Your task to perform on an android device: open app "Chime – Mobile Banking" Image 0: 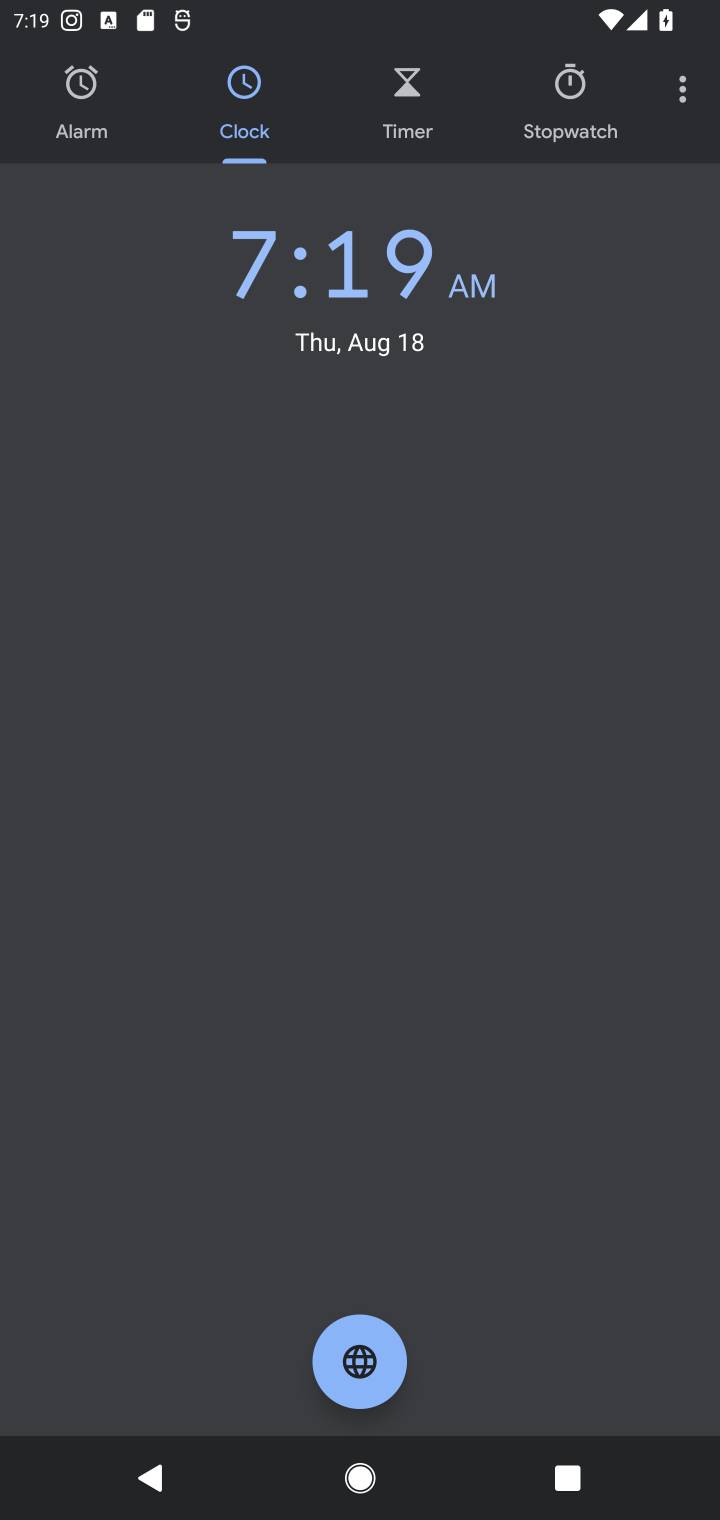
Step 0: press home button
Your task to perform on an android device: open app "Chime – Mobile Banking" Image 1: 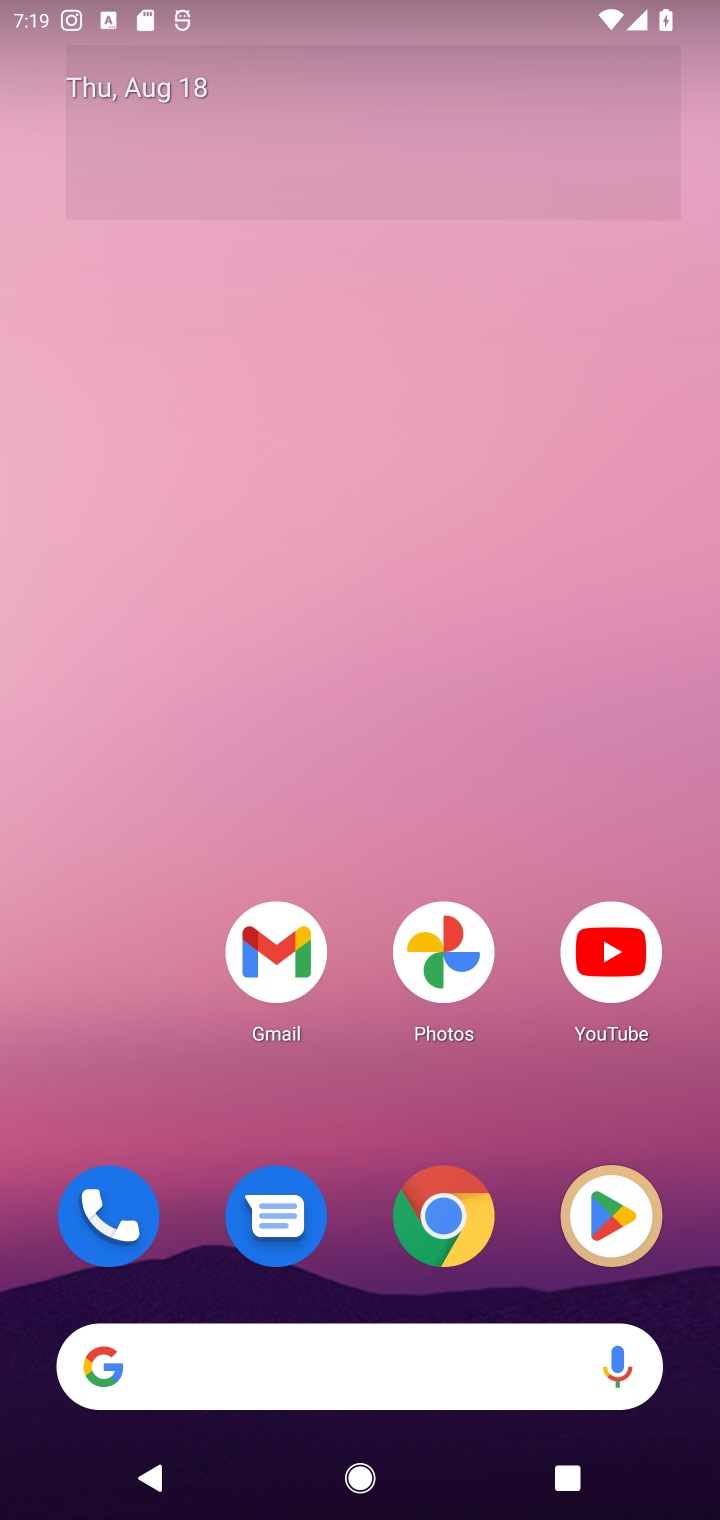
Step 1: click (620, 1191)
Your task to perform on an android device: open app "Chime – Mobile Banking" Image 2: 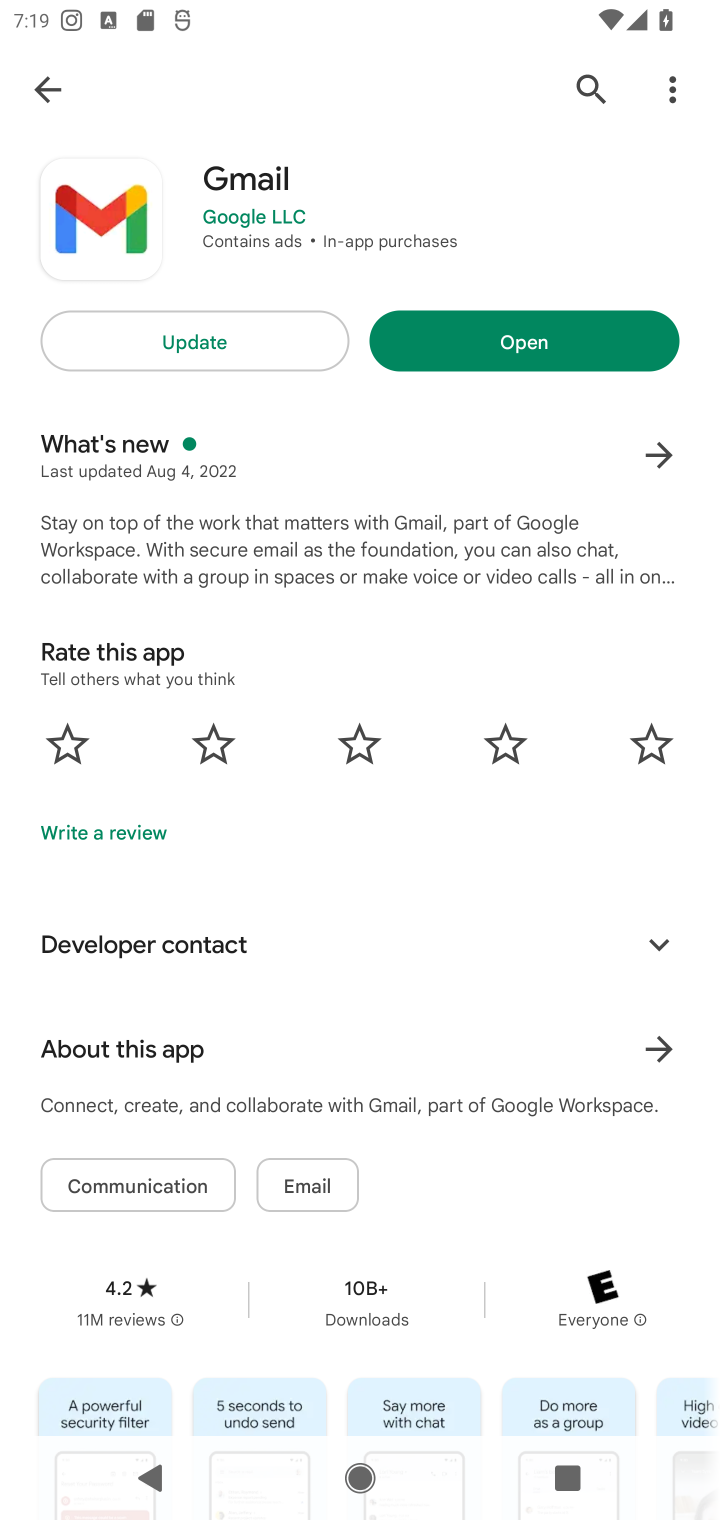
Step 2: click (588, 90)
Your task to perform on an android device: open app "Chime – Mobile Banking" Image 3: 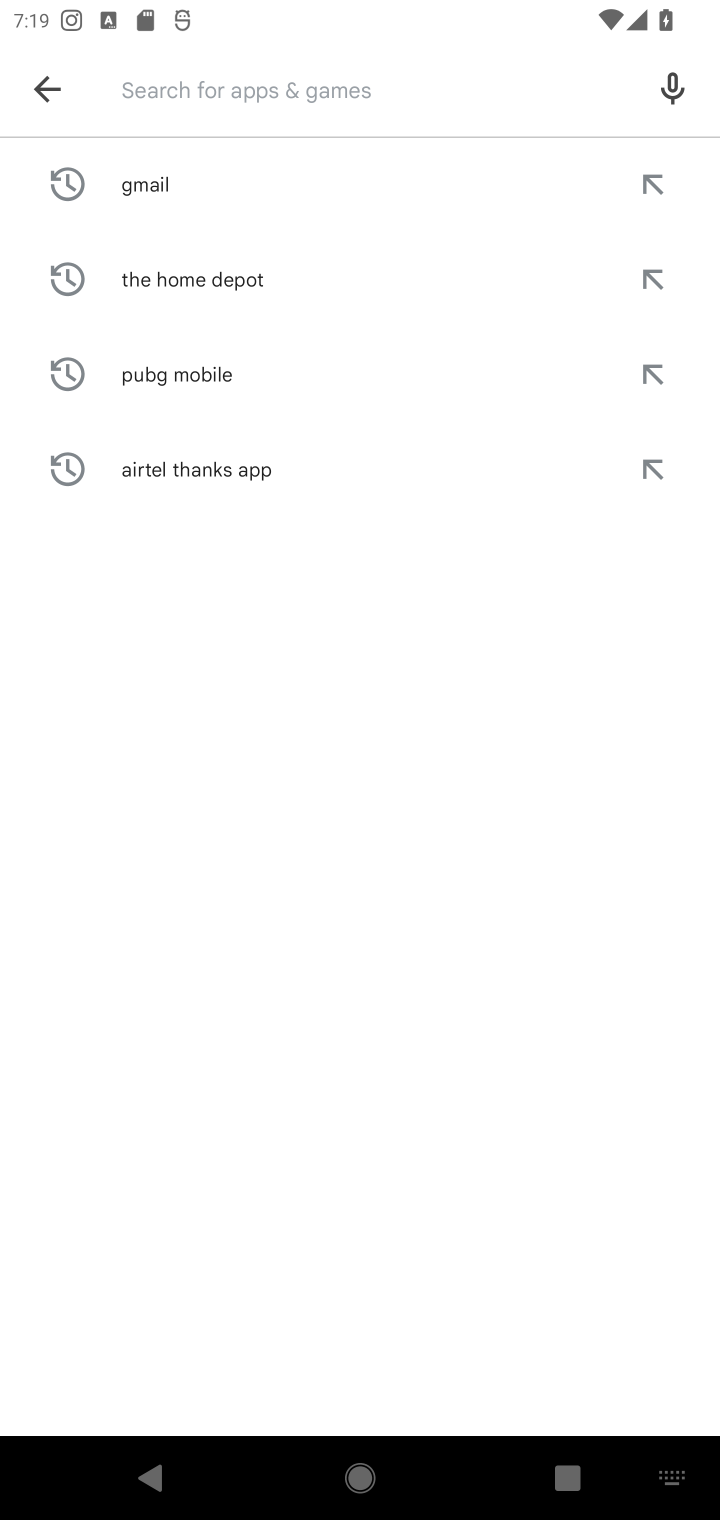
Step 3: type "Chime"
Your task to perform on an android device: open app "Chime – Mobile Banking" Image 4: 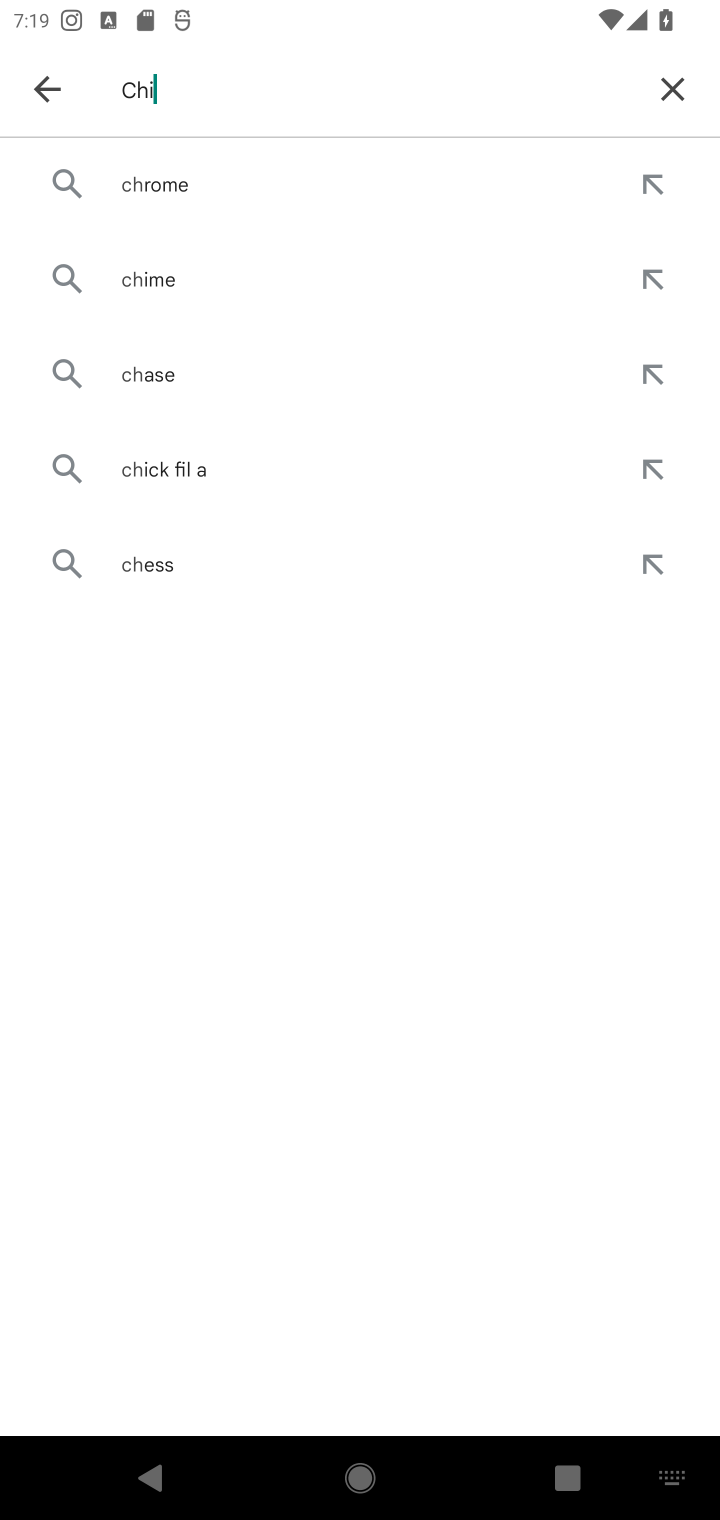
Step 4: type ""
Your task to perform on an android device: open app "Chime – Mobile Banking" Image 5: 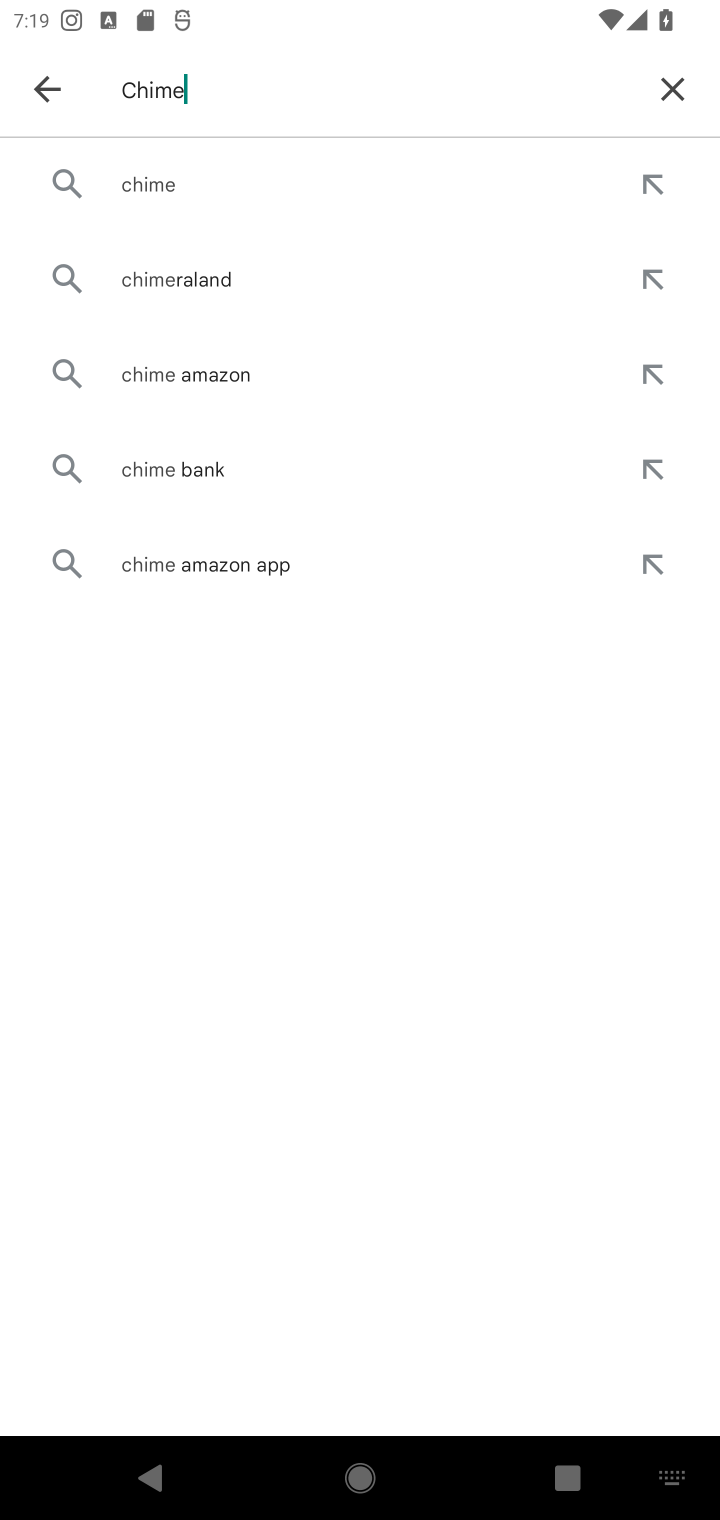
Step 5: click (184, 174)
Your task to perform on an android device: open app "Chime – Mobile Banking" Image 6: 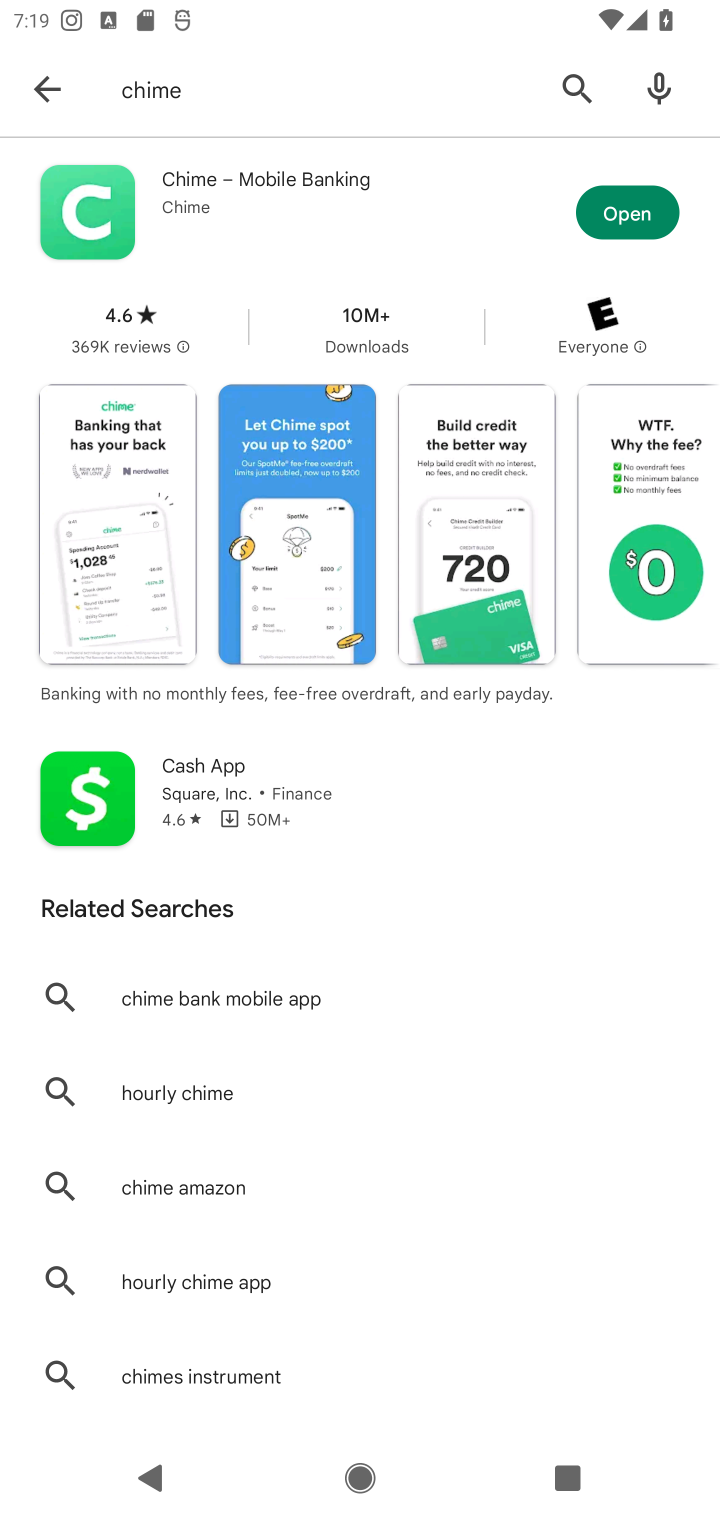
Step 6: click (626, 205)
Your task to perform on an android device: open app "Chime – Mobile Banking" Image 7: 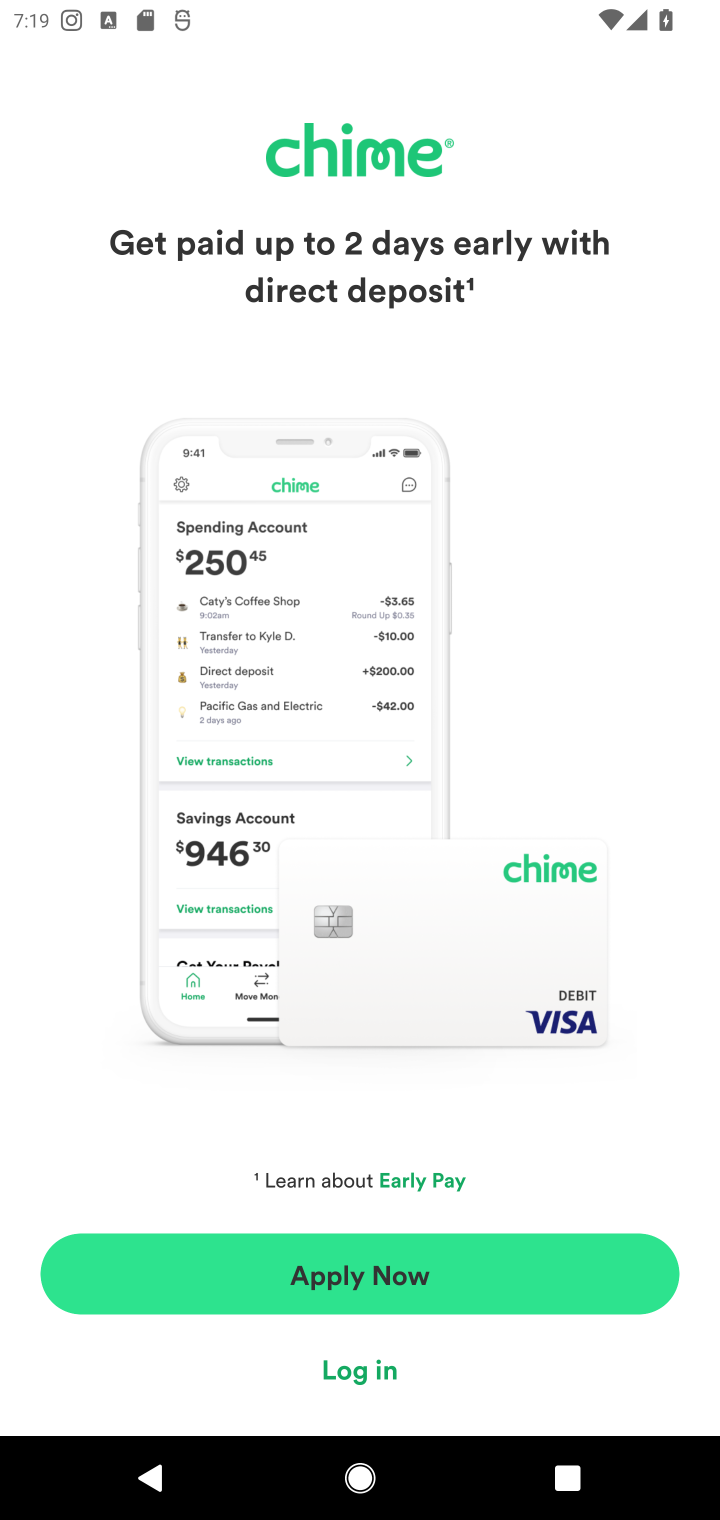
Step 7: task complete